Your task to perform on an android device: Go to sound settings Image 0: 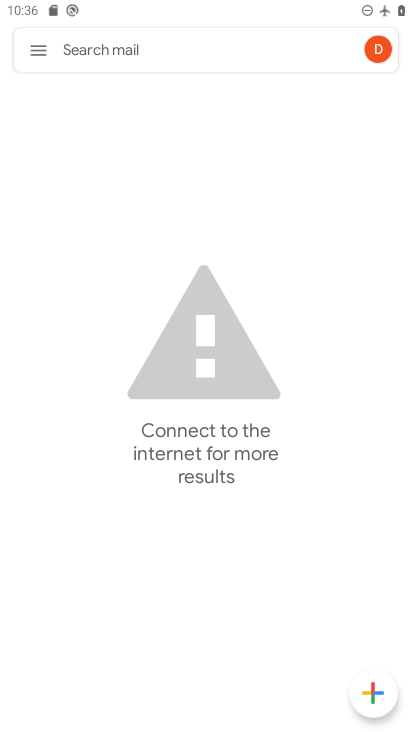
Step 0: press home button
Your task to perform on an android device: Go to sound settings Image 1: 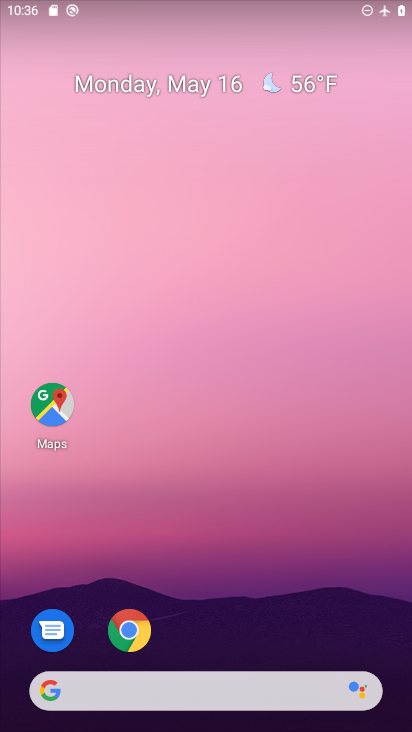
Step 1: drag from (216, 592) to (259, 141)
Your task to perform on an android device: Go to sound settings Image 2: 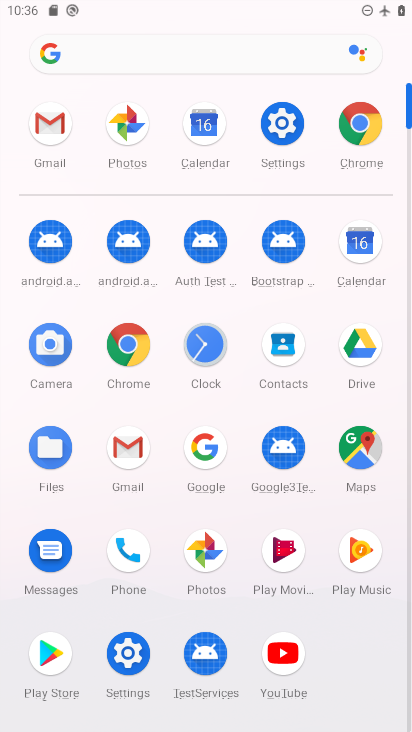
Step 2: click (282, 120)
Your task to perform on an android device: Go to sound settings Image 3: 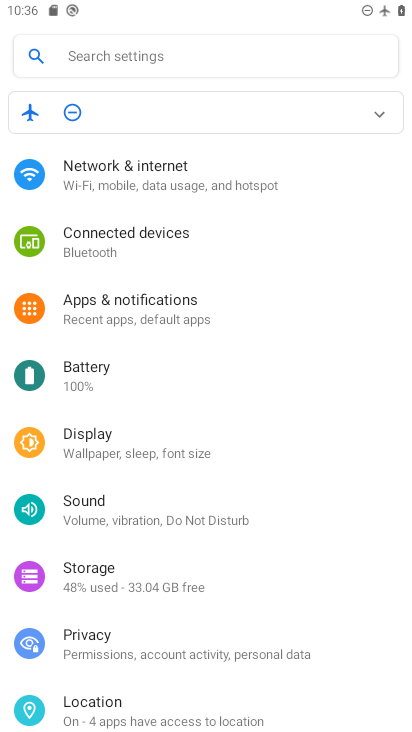
Step 3: click (138, 503)
Your task to perform on an android device: Go to sound settings Image 4: 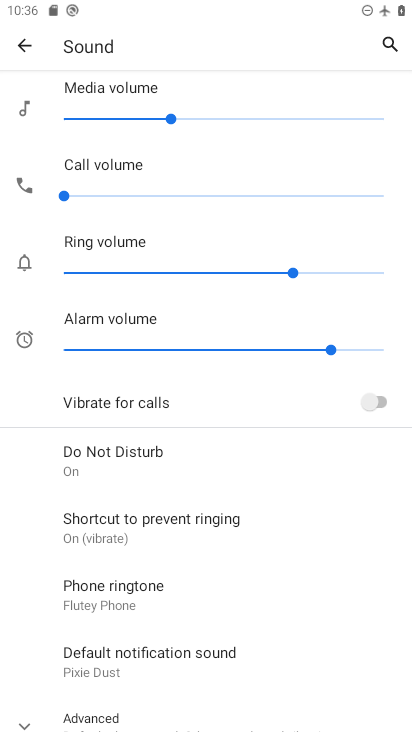
Step 4: task complete